Your task to perform on an android device: open a new tab in the chrome app Image 0: 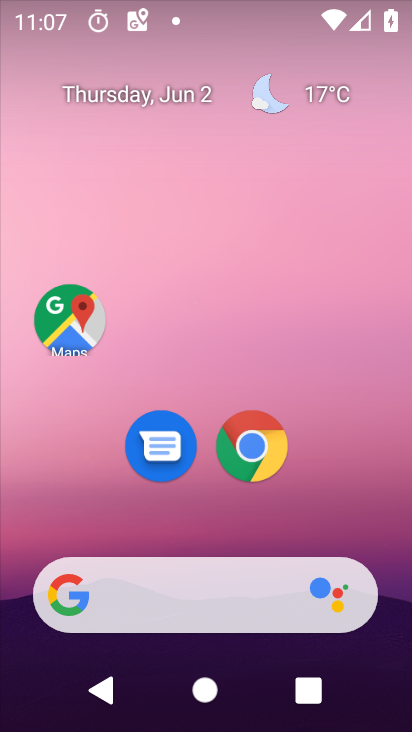
Step 0: drag from (370, 498) to (377, 164)
Your task to perform on an android device: open a new tab in the chrome app Image 1: 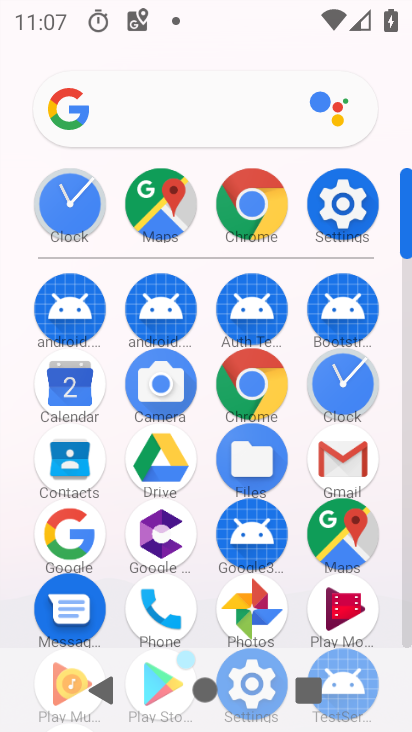
Step 1: click (252, 384)
Your task to perform on an android device: open a new tab in the chrome app Image 2: 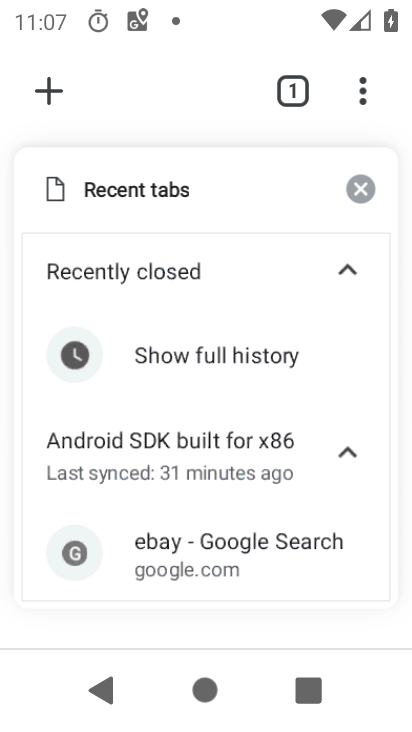
Step 2: press back button
Your task to perform on an android device: open a new tab in the chrome app Image 3: 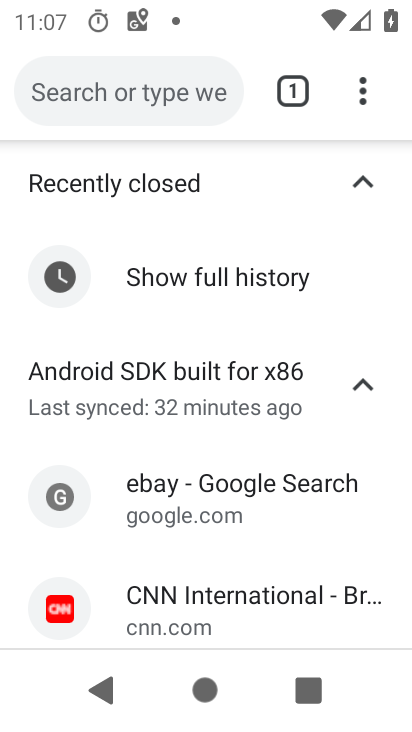
Step 3: click (362, 103)
Your task to perform on an android device: open a new tab in the chrome app Image 4: 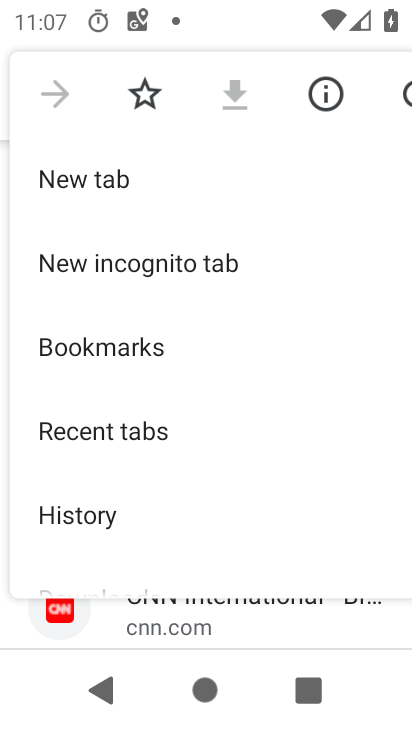
Step 4: click (115, 187)
Your task to perform on an android device: open a new tab in the chrome app Image 5: 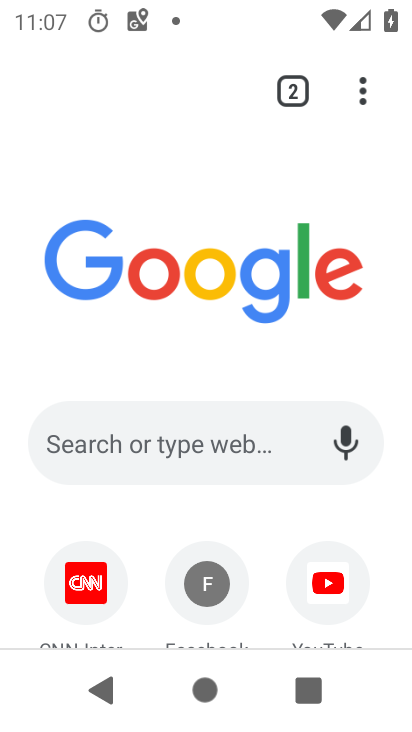
Step 5: task complete